Your task to perform on an android device: toggle improve location accuracy Image 0: 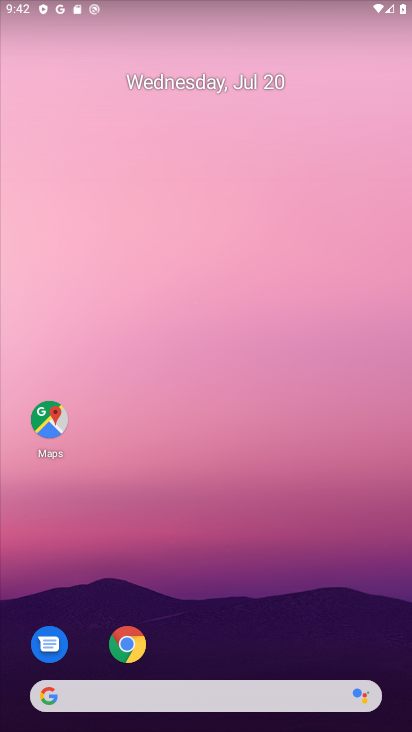
Step 0: drag from (271, 525) to (319, 130)
Your task to perform on an android device: toggle improve location accuracy Image 1: 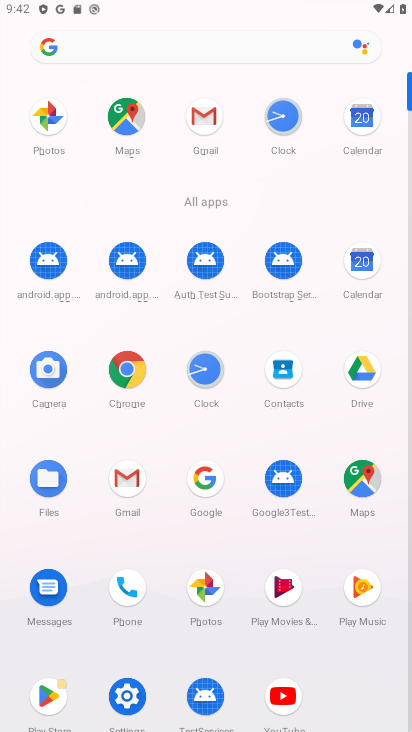
Step 1: click (125, 700)
Your task to perform on an android device: toggle improve location accuracy Image 2: 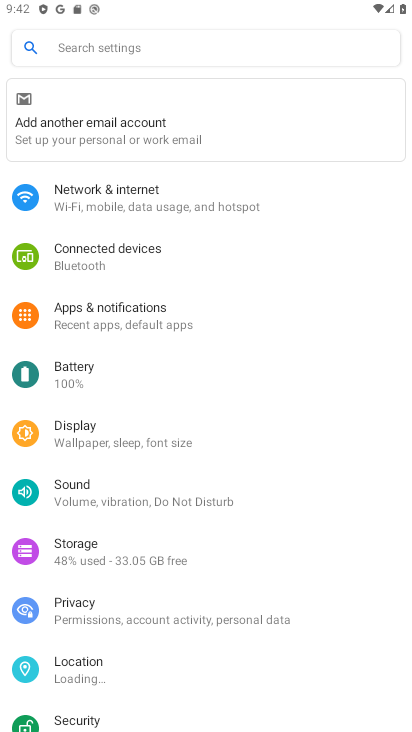
Step 2: click (95, 664)
Your task to perform on an android device: toggle improve location accuracy Image 3: 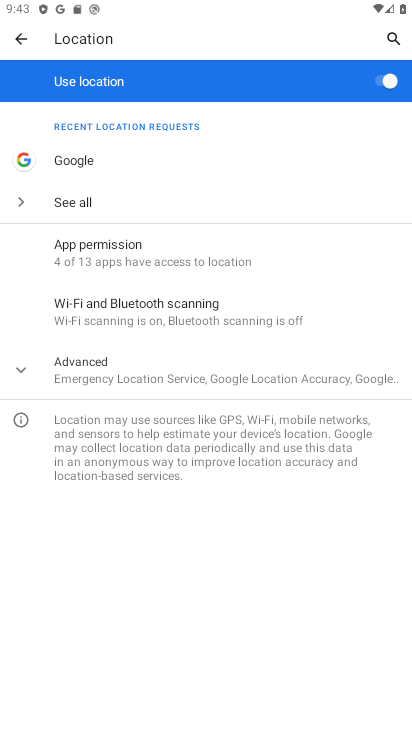
Step 3: task complete